Your task to perform on an android device: open sync settings in chrome Image 0: 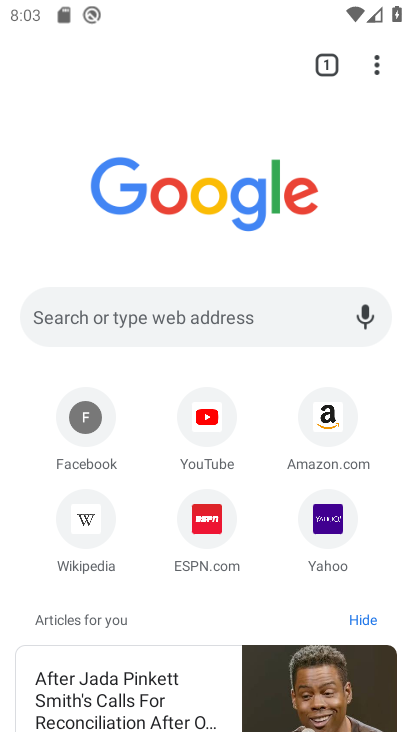
Step 0: press home button
Your task to perform on an android device: open sync settings in chrome Image 1: 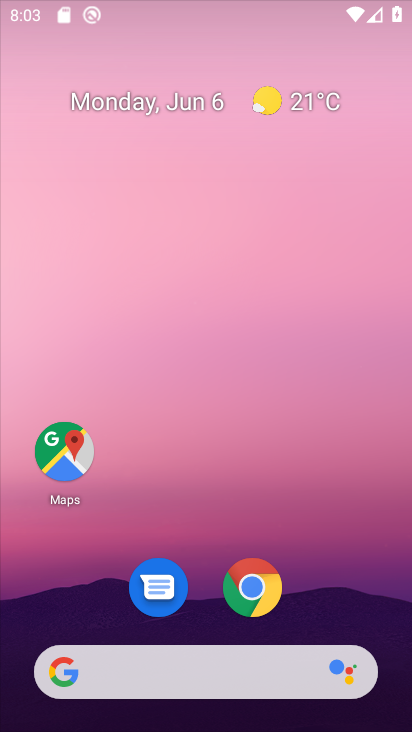
Step 1: drag from (341, 559) to (271, 171)
Your task to perform on an android device: open sync settings in chrome Image 2: 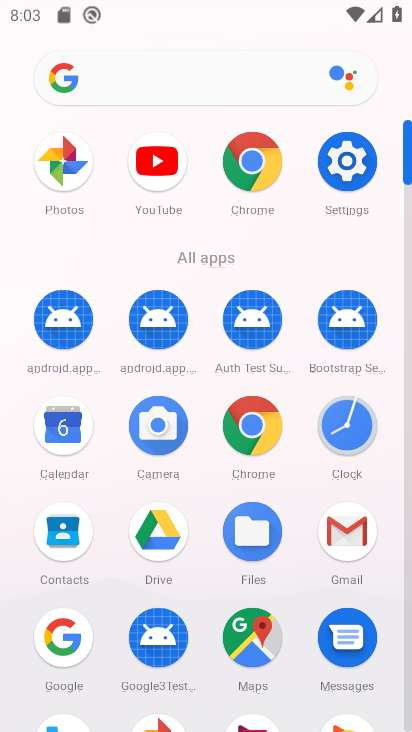
Step 2: click (253, 425)
Your task to perform on an android device: open sync settings in chrome Image 3: 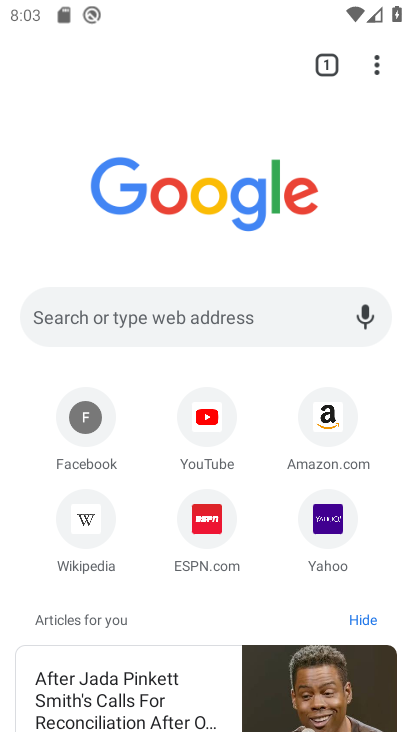
Step 3: drag from (377, 71) to (199, 546)
Your task to perform on an android device: open sync settings in chrome Image 4: 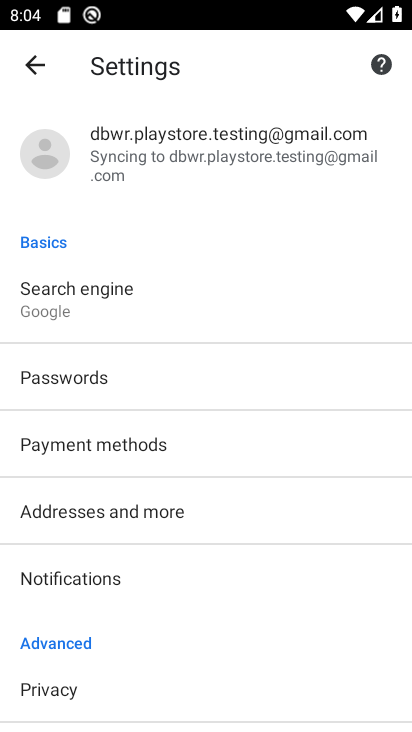
Step 4: drag from (151, 672) to (215, 290)
Your task to perform on an android device: open sync settings in chrome Image 5: 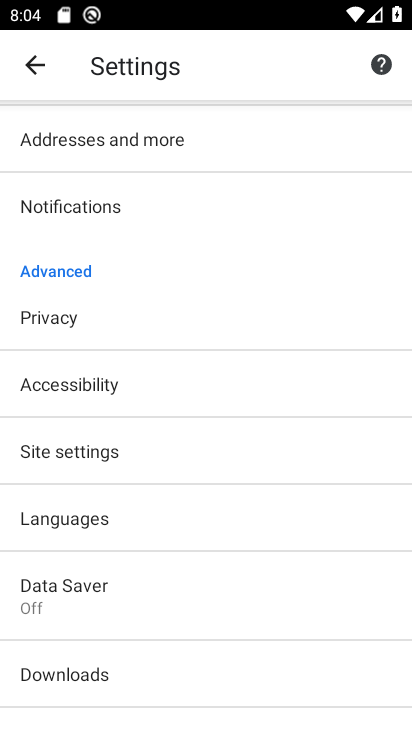
Step 5: drag from (219, 647) to (241, 362)
Your task to perform on an android device: open sync settings in chrome Image 6: 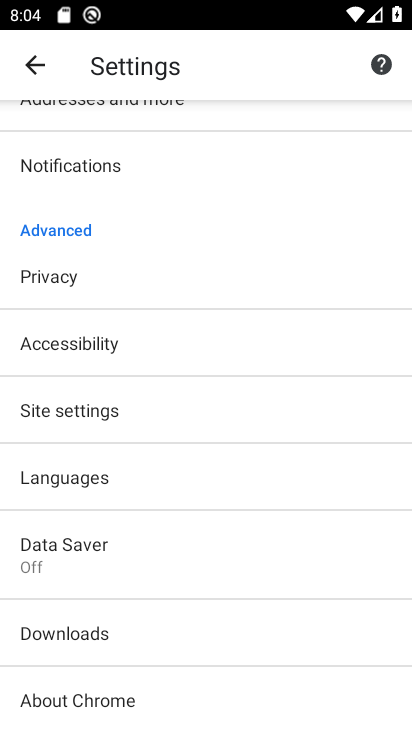
Step 6: click (104, 416)
Your task to perform on an android device: open sync settings in chrome Image 7: 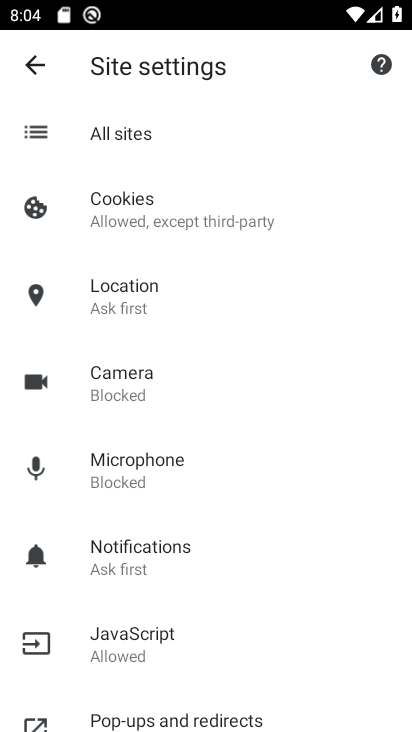
Step 7: drag from (227, 626) to (234, 371)
Your task to perform on an android device: open sync settings in chrome Image 8: 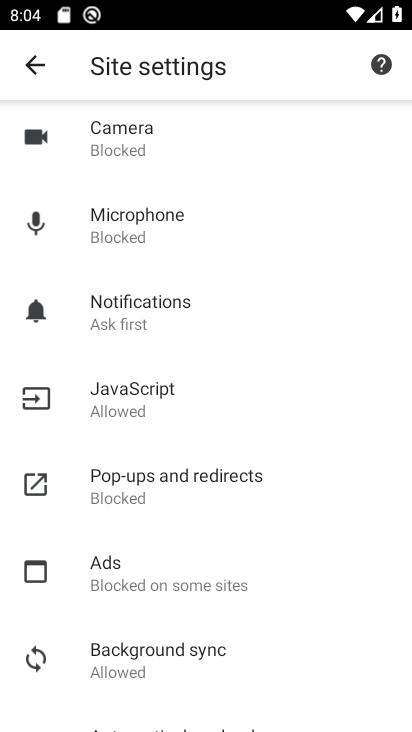
Step 8: click (217, 629)
Your task to perform on an android device: open sync settings in chrome Image 9: 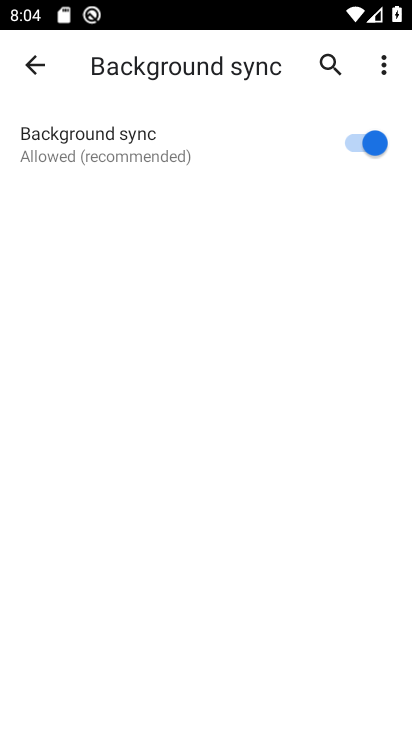
Step 9: task complete